Your task to perform on an android device: turn on location history Image 0: 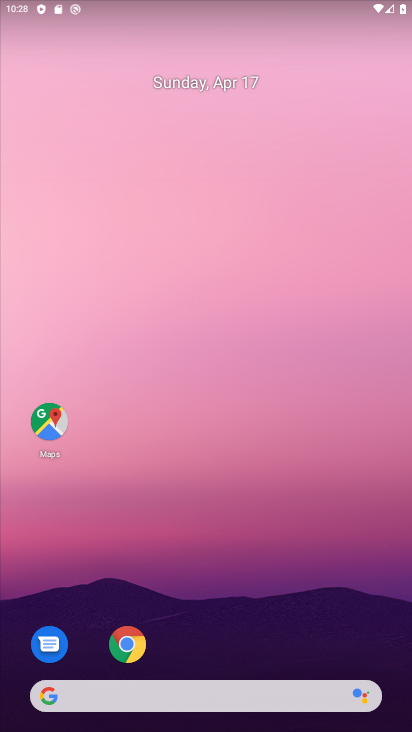
Step 0: drag from (228, 636) to (409, 225)
Your task to perform on an android device: turn on location history Image 1: 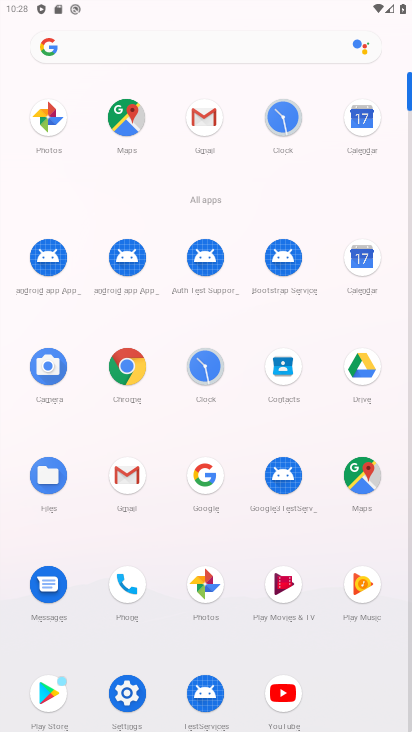
Step 1: click (123, 684)
Your task to perform on an android device: turn on location history Image 2: 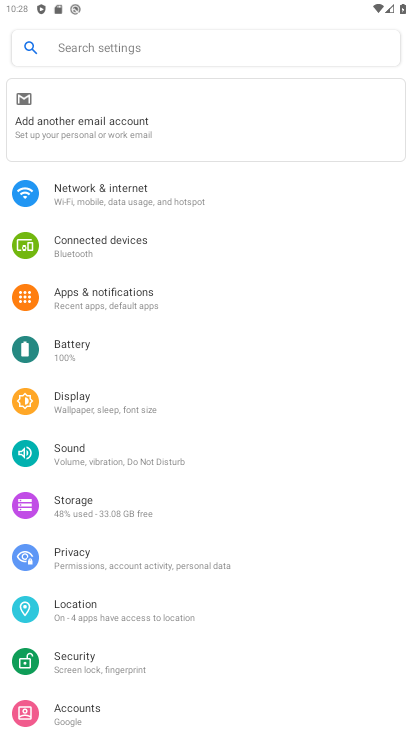
Step 2: click (107, 612)
Your task to perform on an android device: turn on location history Image 3: 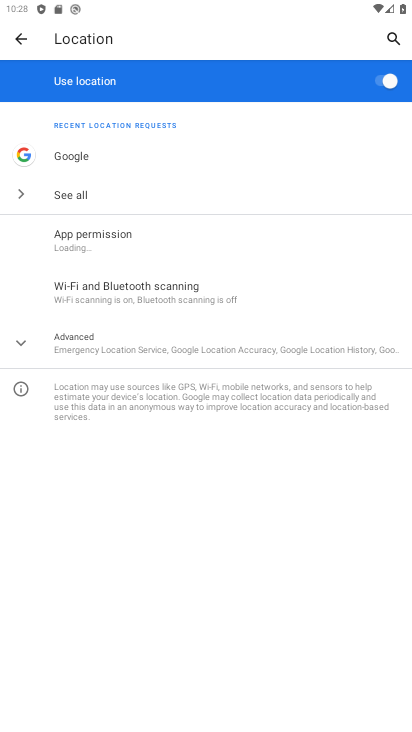
Step 3: click (156, 352)
Your task to perform on an android device: turn on location history Image 4: 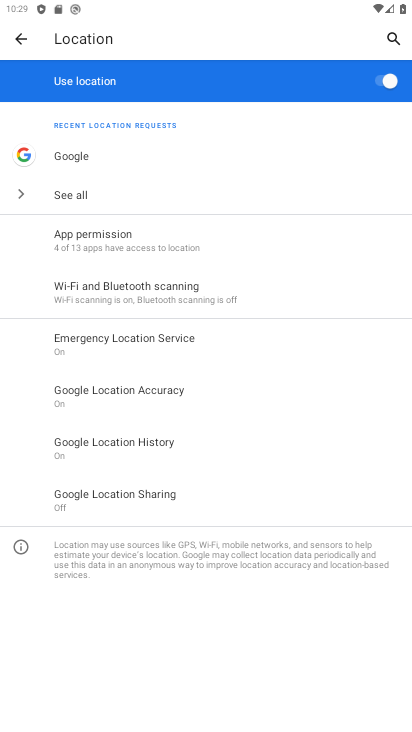
Step 4: click (147, 442)
Your task to perform on an android device: turn on location history Image 5: 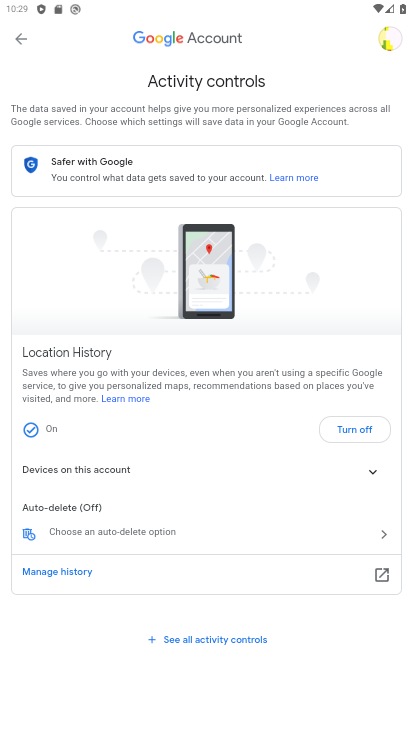
Step 5: task complete